Your task to perform on an android device: install app "WhatsApp Messenger" Image 0: 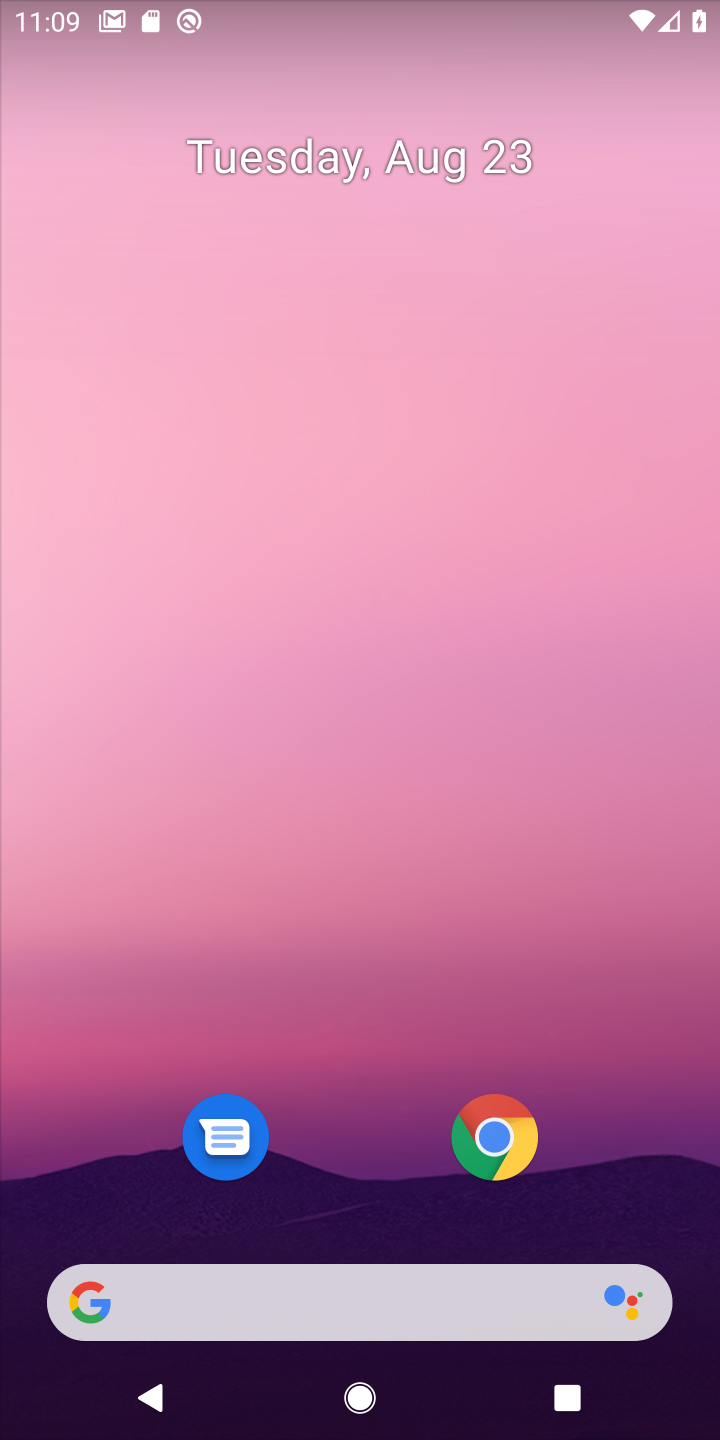
Step 0: drag from (366, 1187) to (390, 7)
Your task to perform on an android device: install app "WhatsApp Messenger" Image 1: 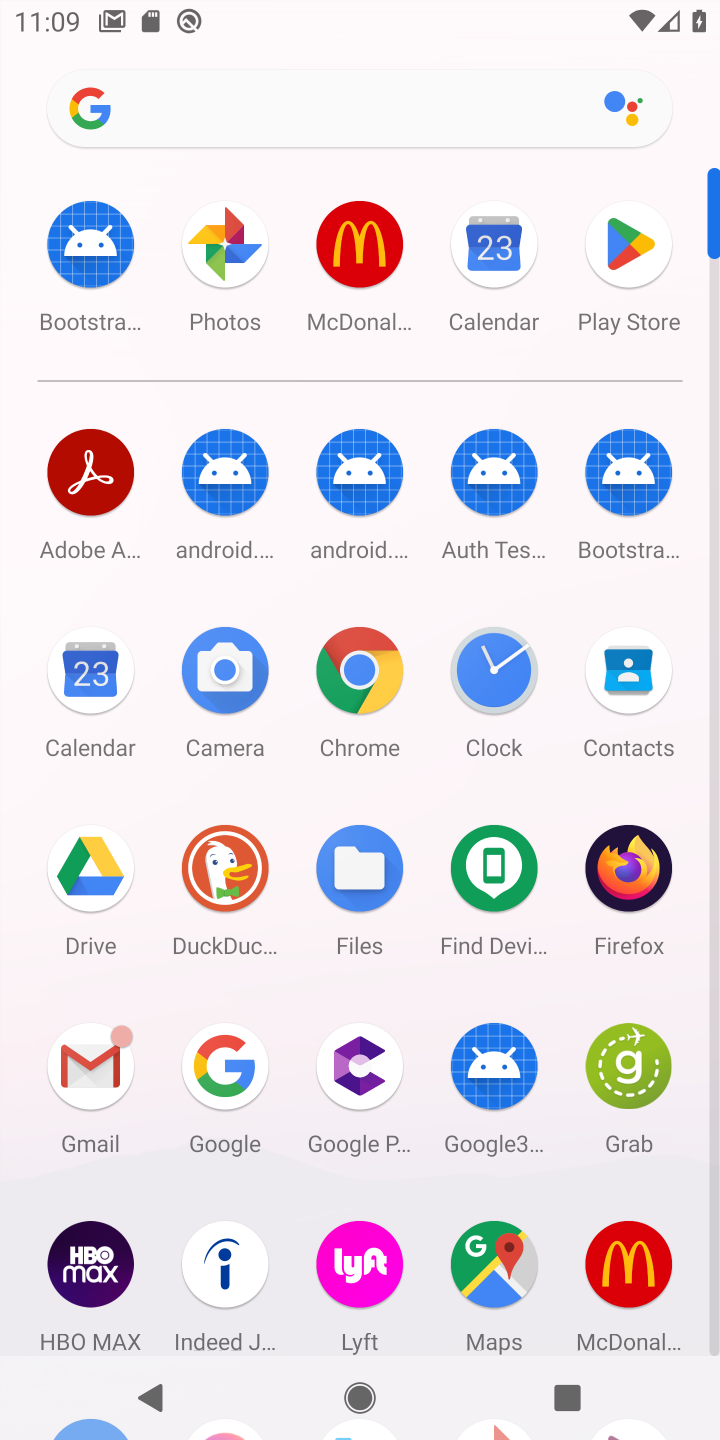
Step 1: click (648, 272)
Your task to perform on an android device: install app "WhatsApp Messenger" Image 2: 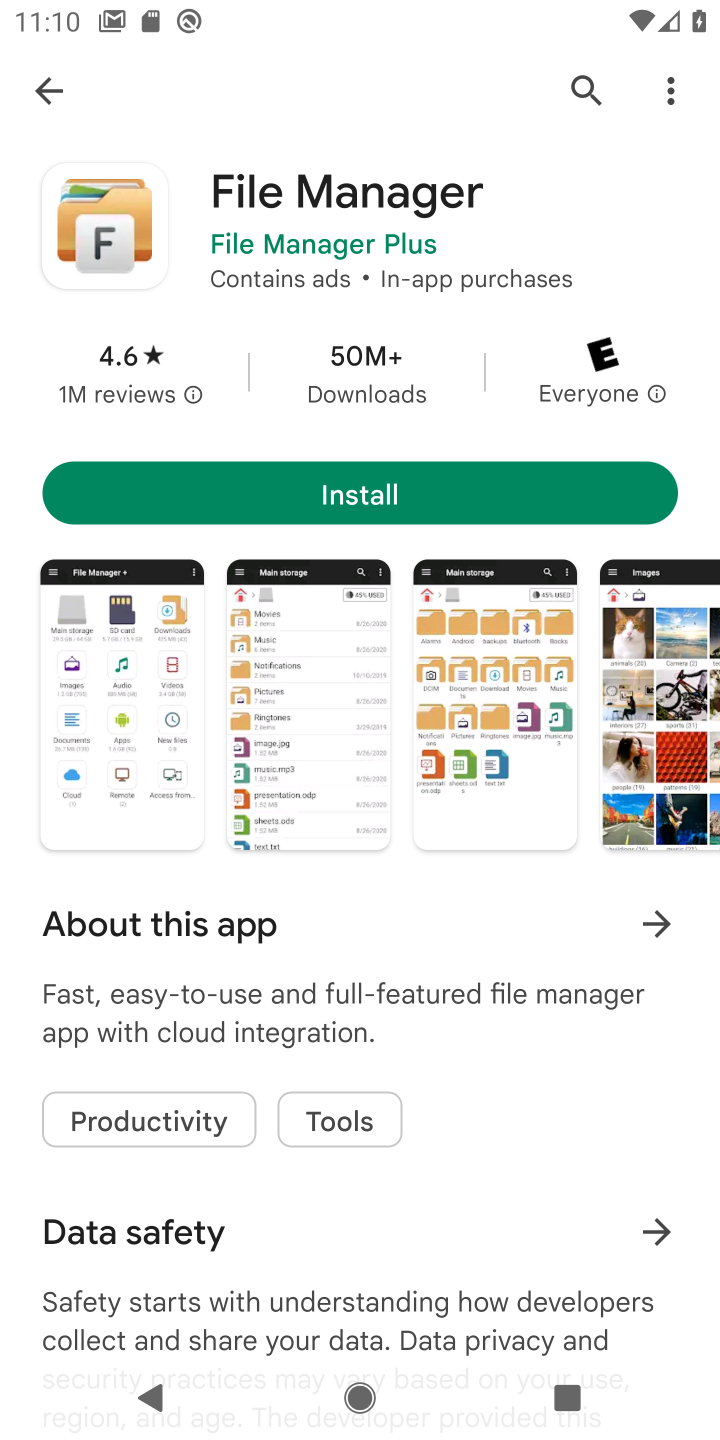
Step 2: click (50, 85)
Your task to perform on an android device: install app "WhatsApp Messenger" Image 3: 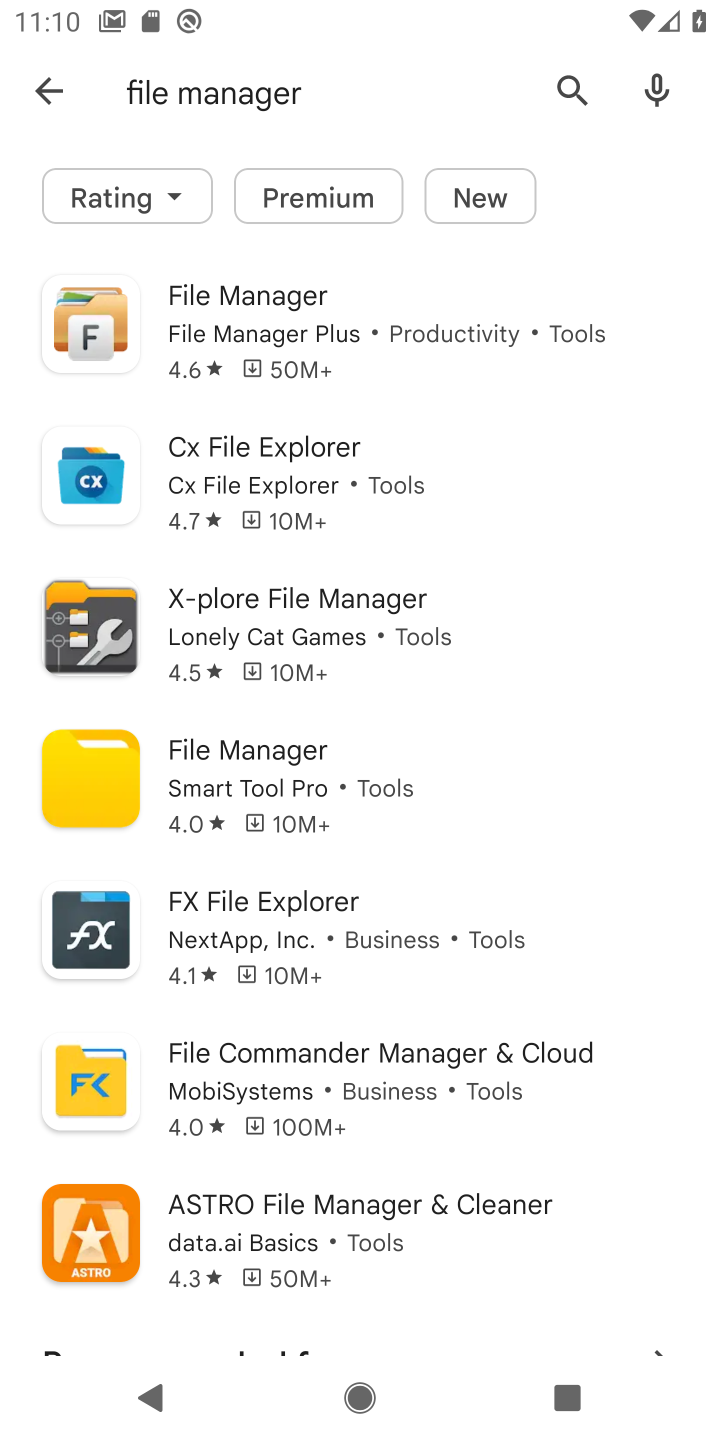
Step 3: click (260, 95)
Your task to perform on an android device: install app "WhatsApp Messenger" Image 4: 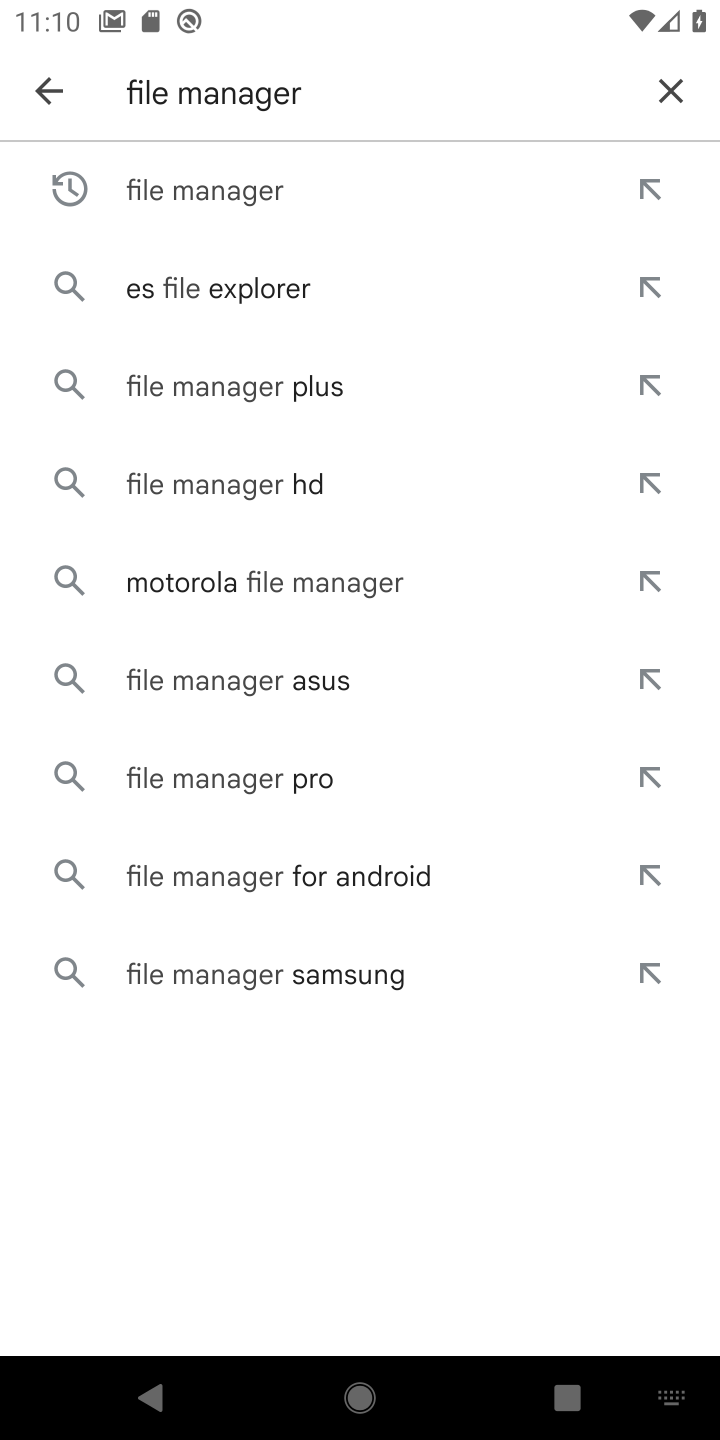
Step 4: click (668, 93)
Your task to perform on an android device: install app "WhatsApp Messenger" Image 5: 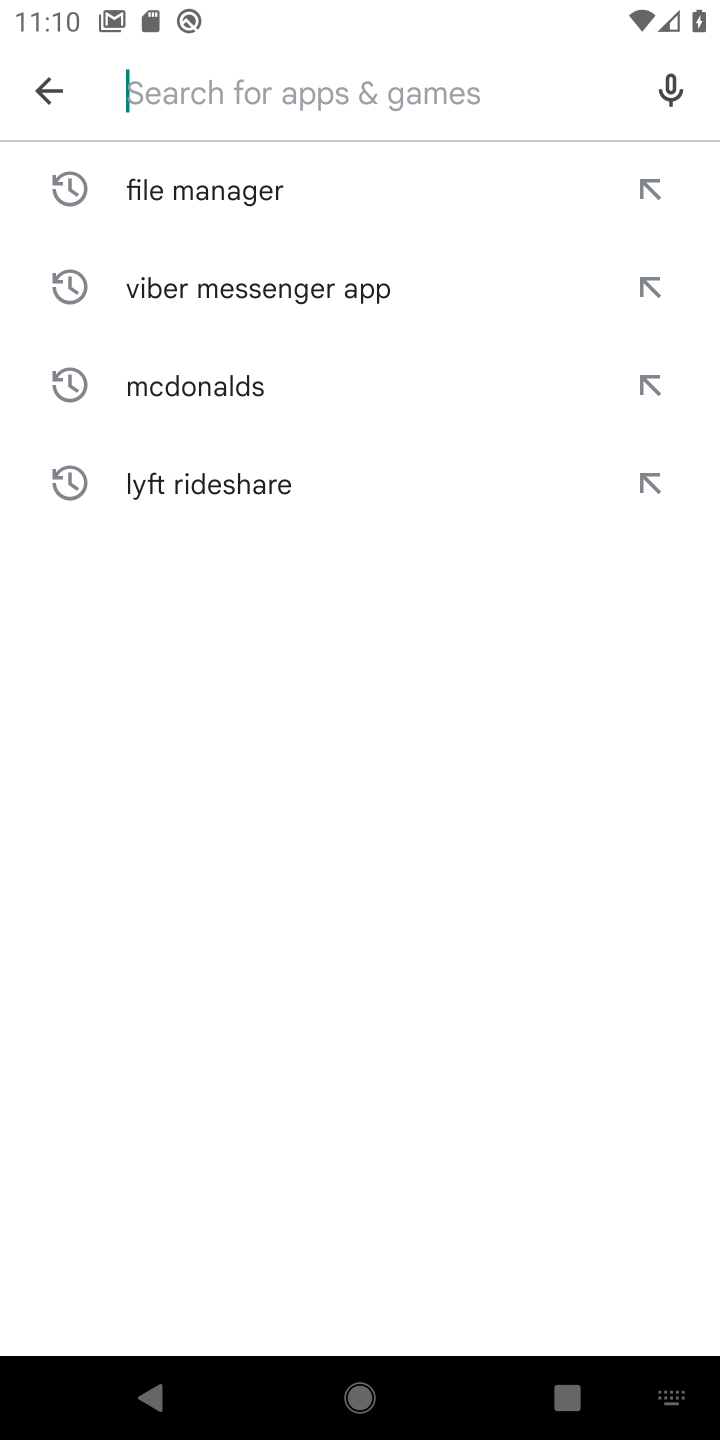
Step 5: type "whatsapp messenger"
Your task to perform on an android device: install app "WhatsApp Messenger" Image 6: 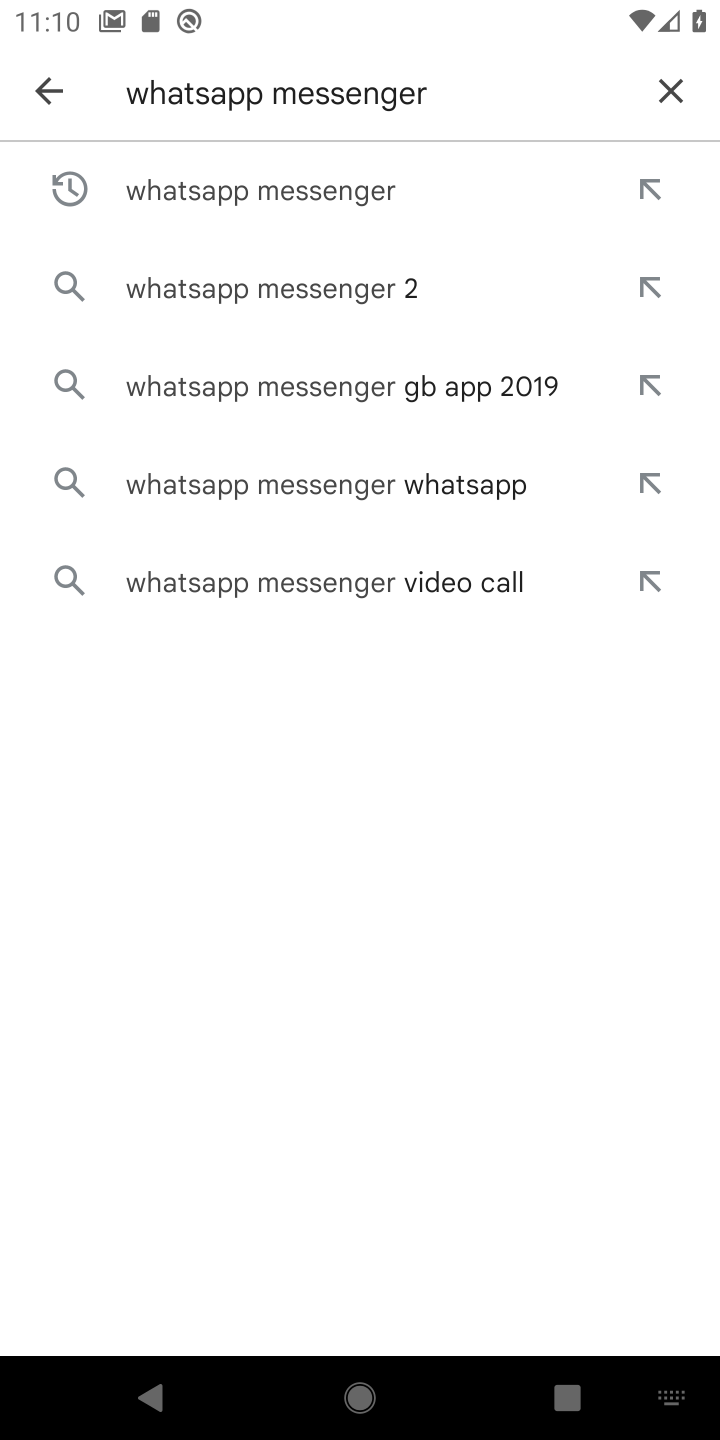
Step 6: click (377, 185)
Your task to perform on an android device: install app "WhatsApp Messenger" Image 7: 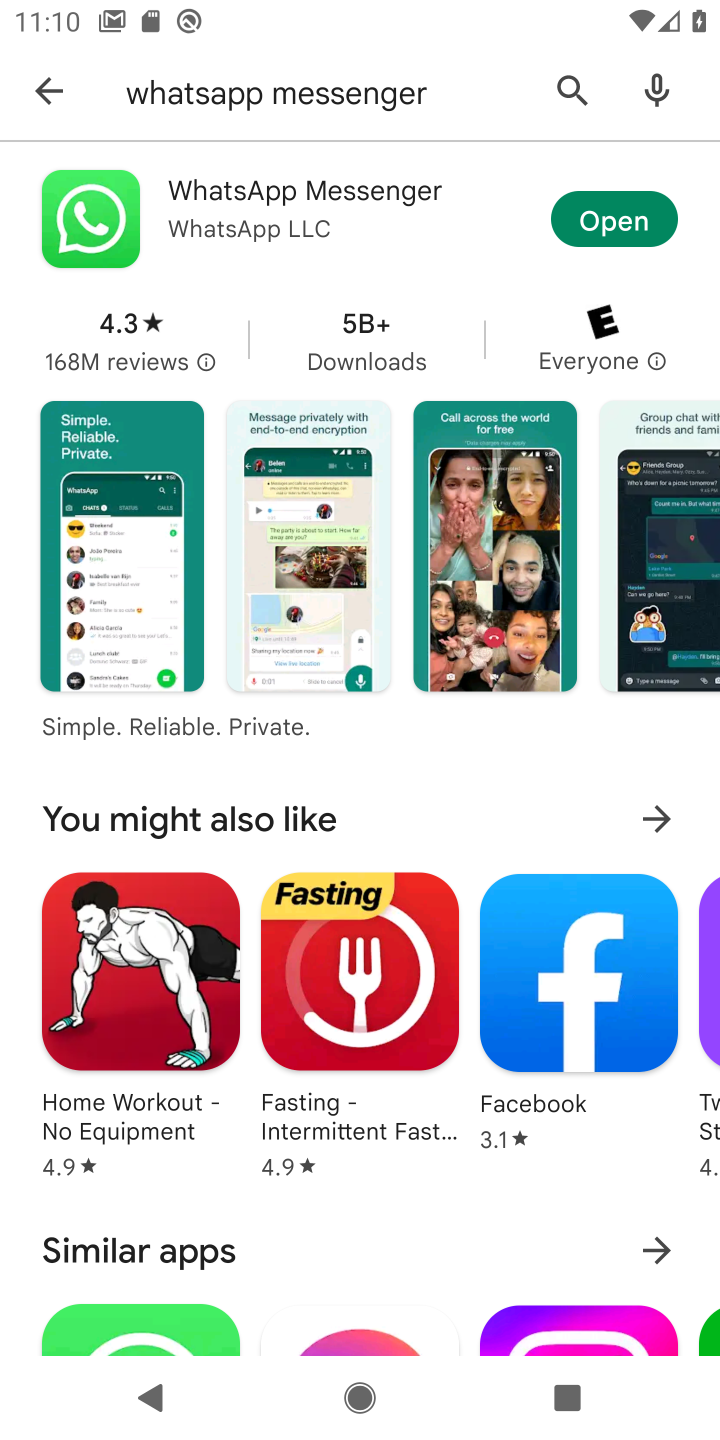
Step 7: task complete